Your task to perform on an android device: Go to Google Image 0: 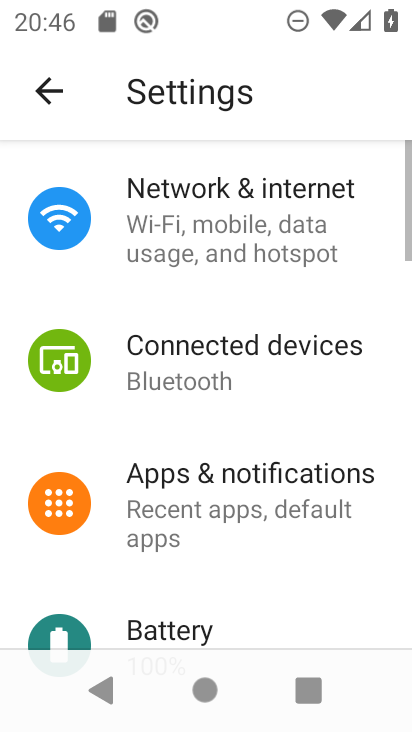
Step 0: press home button
Your task to perform on an android device: Go to Google Image 1: 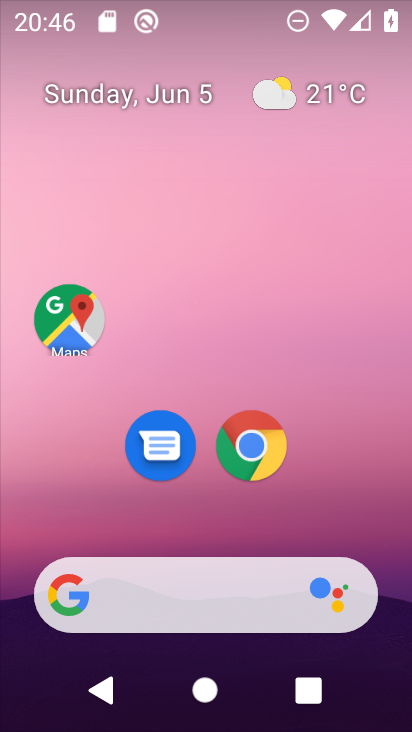
Step 1: drag from (314, 462) to (312, 79)
Your task to perform on an android device: Go to Google Image 2: 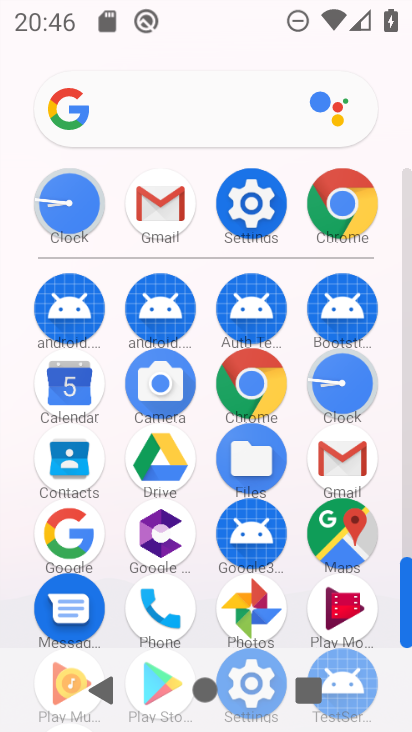
Step 2: click (81, 542)
Your task to perform on an android device: Go to Google Image 3: 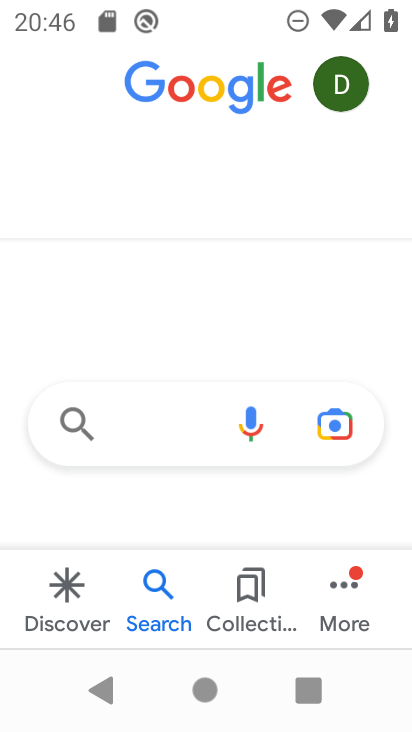
Step 3: task complete